Your task to perform on an android device: Open Amazon Image 0: 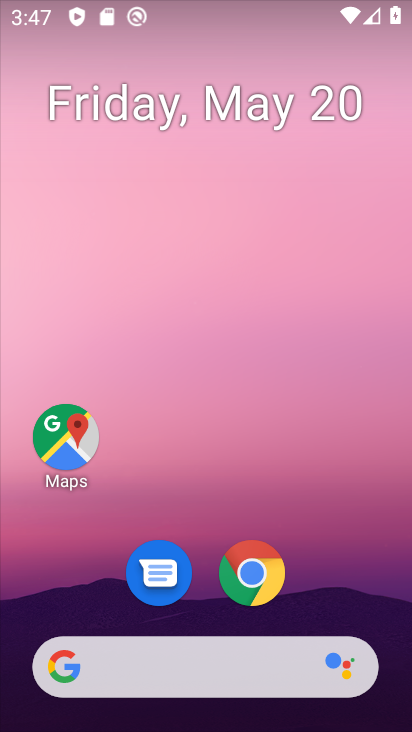
Step 0: drag from (322, 561) to (361, 190)
Your task to perform on an android device: Open Amazon Image 1: 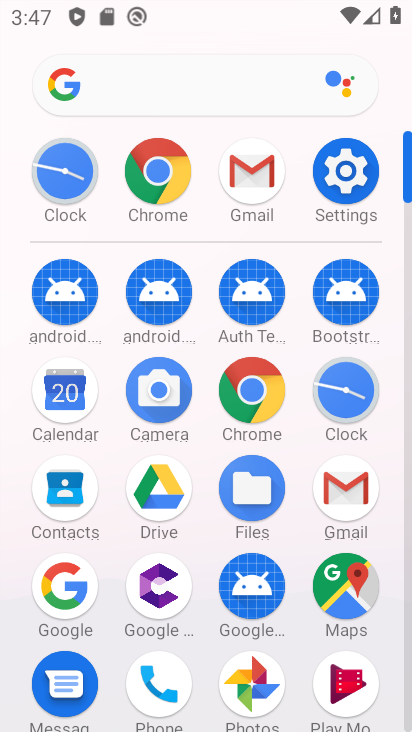
Step 1: click (246, 392)
Your task to perform on an android device: Open Amazon Image 2: 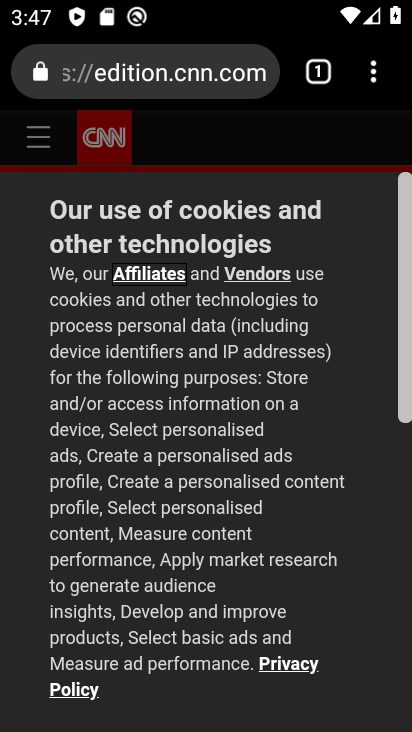
Step 2: click (318, 79)
Your task to perform on an android device: Open Amazon Image 3: 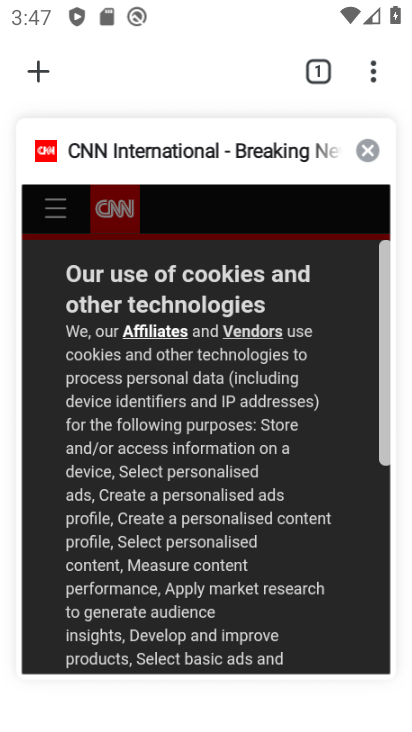
Step 3: click (52, 62)
Your task to perform on an android device: Open Amazon Image 4: 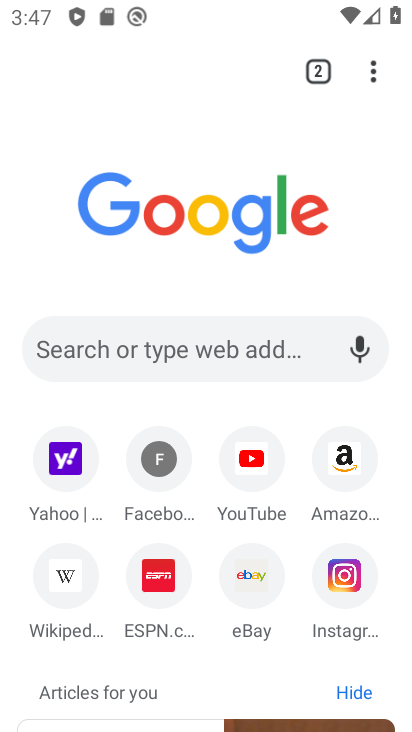
Step 4: click (340, 475)
Your task to perform on an android device: Open Amazon Image 5: 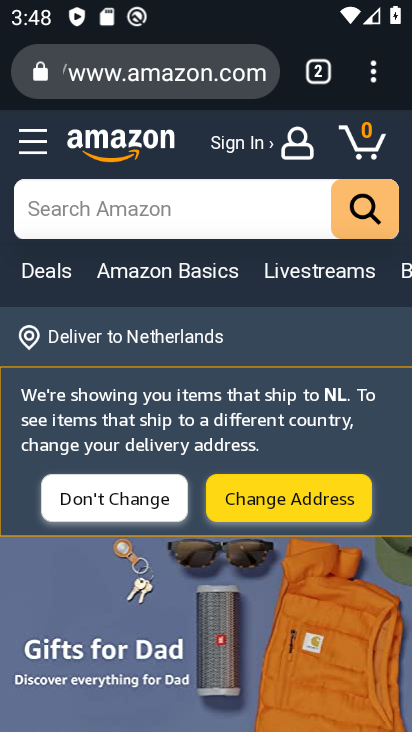
Step 5: task complete